Your task to perform on an android device: add a contact Image 0: 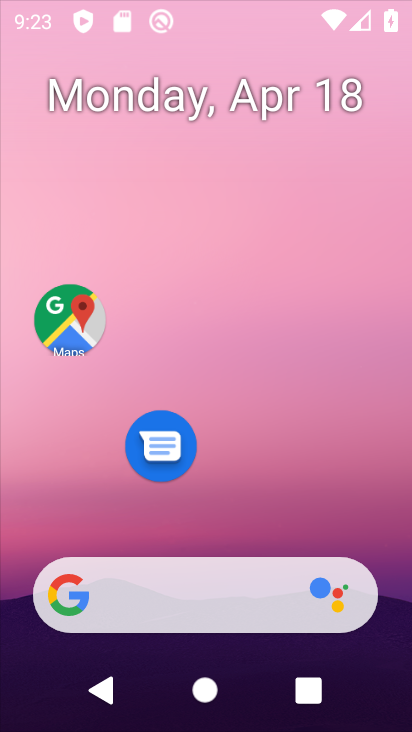
Step 0: drag from (214, 411) to (215, 15)
Your task to perform on an android device: add a contact Image 1: 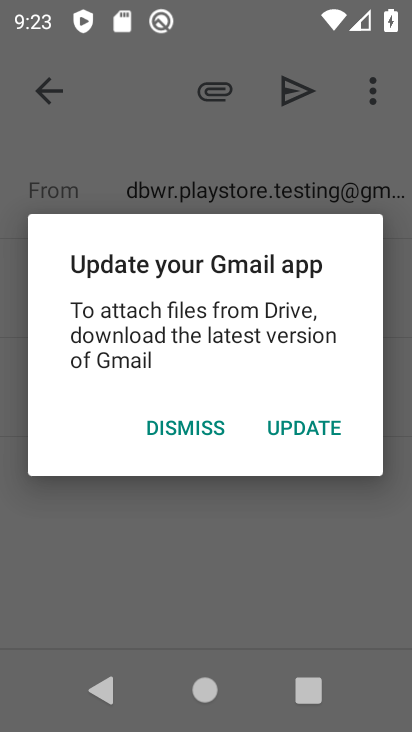
Step 1: press home button
Your task to perform on an android device: add a contact Image 2: 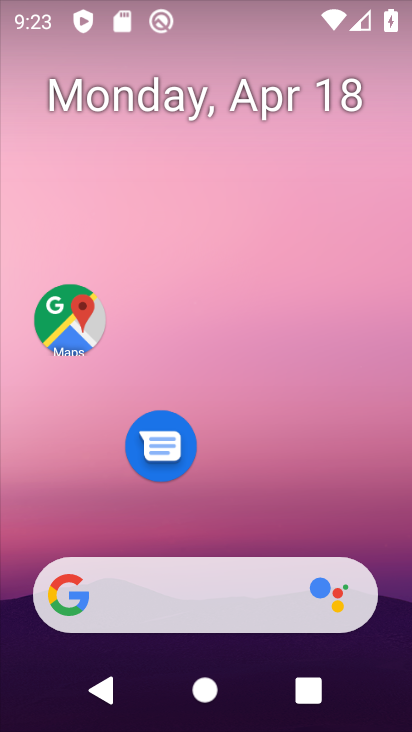
Step 2: drag from (214, 526) to (214, 43)
Your task to perform on an android device: add a contact Image 3: 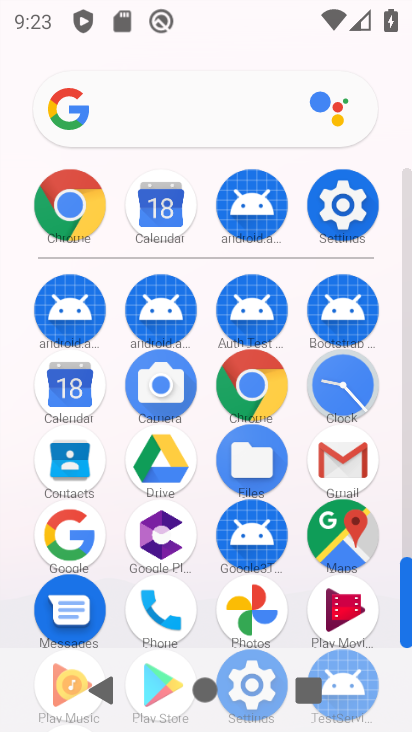
Step 3: click (71, 453)
Your task to perform on an android device: add a contact Image 4: 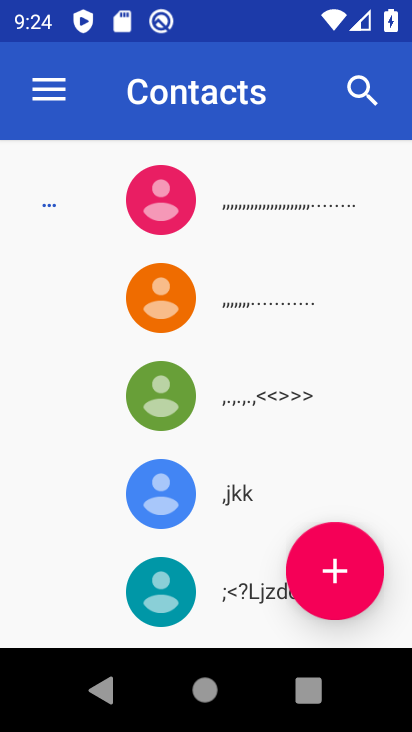
Step 4: click (331, 570)
Your task to perform on an android device: add a contact Image 5: 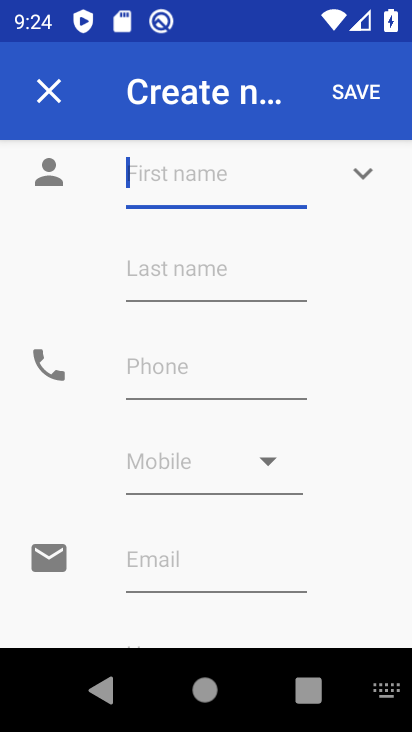
Step 5: type "dffgjh"
Your task to perform on an android device: add a contact Image 6: 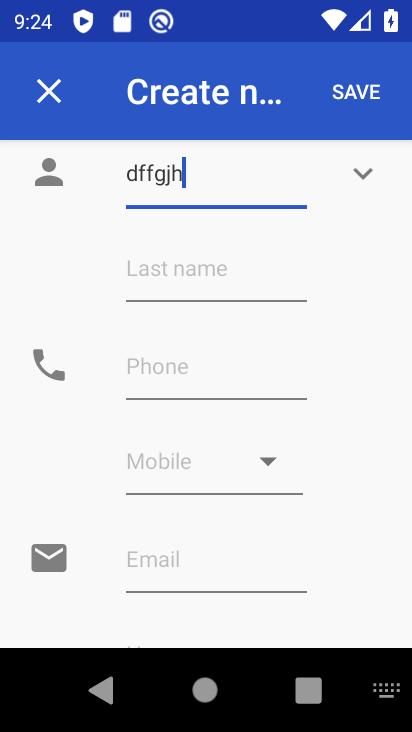
Step 6: click (349, 96)
Your task to perform on an android device: add a contact Image 7: 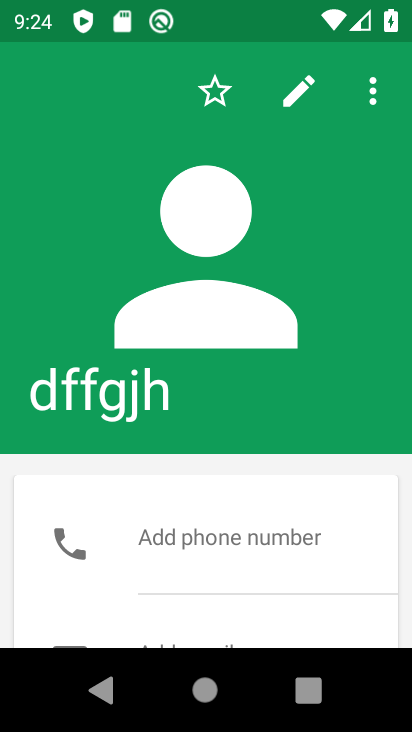
Step 7: task complete